Your task to perform on an android device: refresh tabs in the chrome app Image 0: 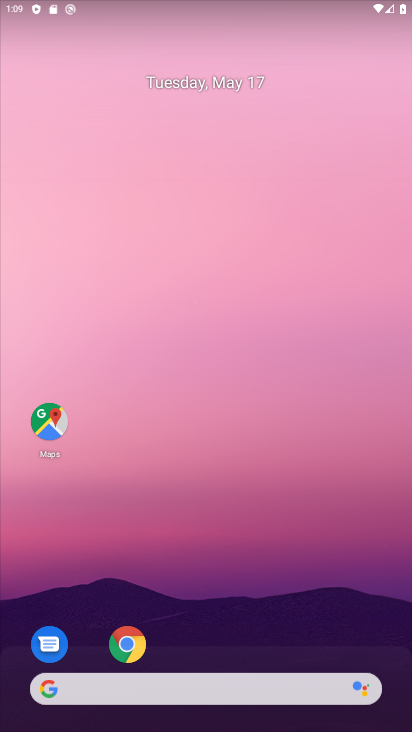
Step 0: click (127, 641)
Your task to perform on an android device: refresh tabs in the chrome app Image 1: 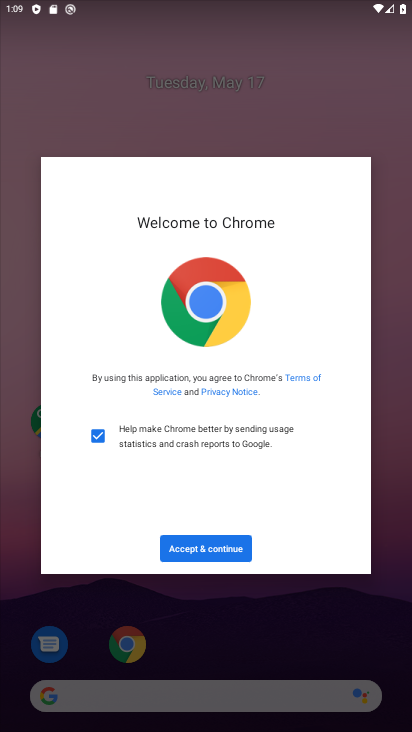
Step 1: click (241, 545)
Your task to perform on an android device: refresh tabs in the chrome app Image 2: 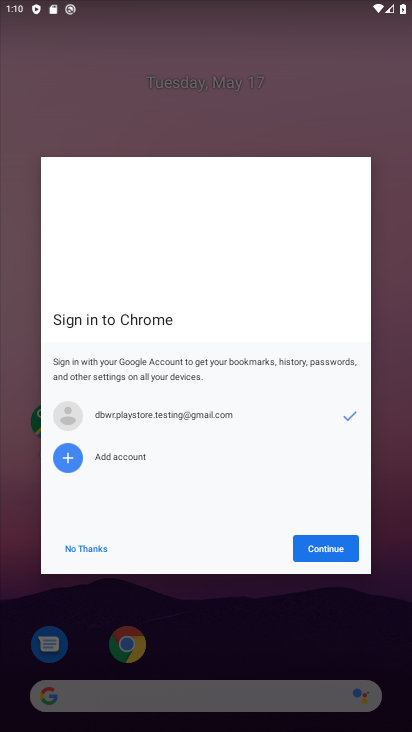
Step 2: click (314, 549)
Your task to perform on an android device: refresh tabs in the chrome app Image 3: 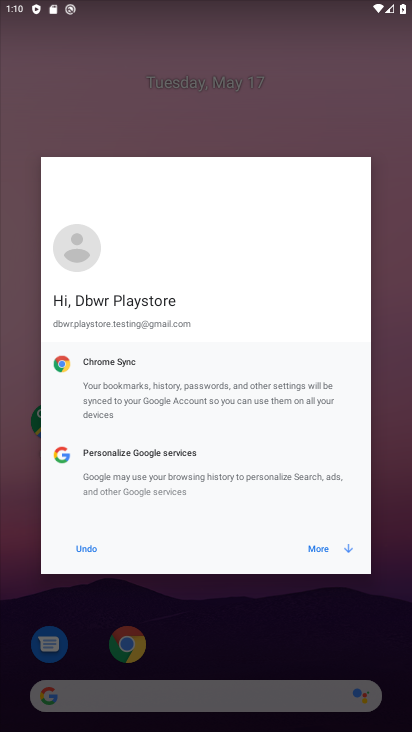
Step 3: click (315, 544)
Your task to perform on an android device: refresh tabs in the chrome app Image 4: 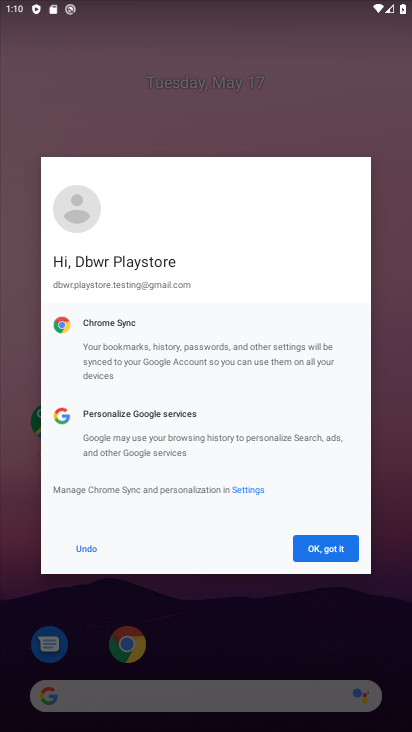
Step 4: click (315, 545)
Your task to perform on an android device: refresh tabs in the chrome app Image 5: 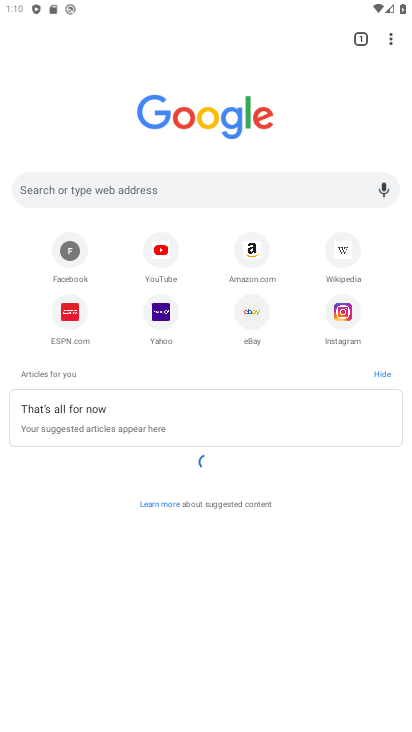
Step 5: click (391, 44)
Your task to perform on an android device: refresh tabs in the chrome app Image 6: 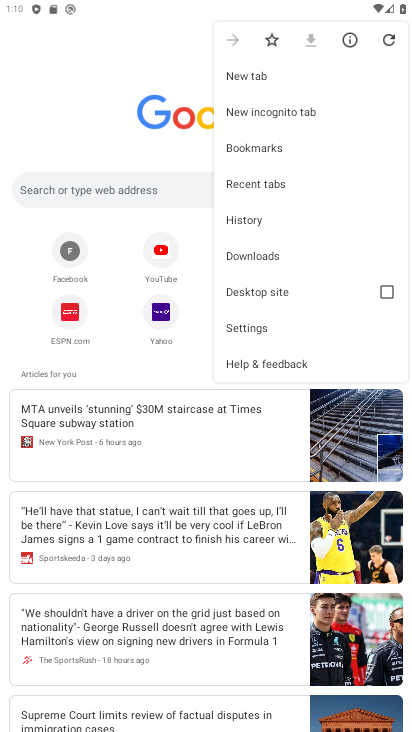
Step 6: click (390, 38)
Your task to perform on an android device: refresh tabs in the chrome app Image 7: 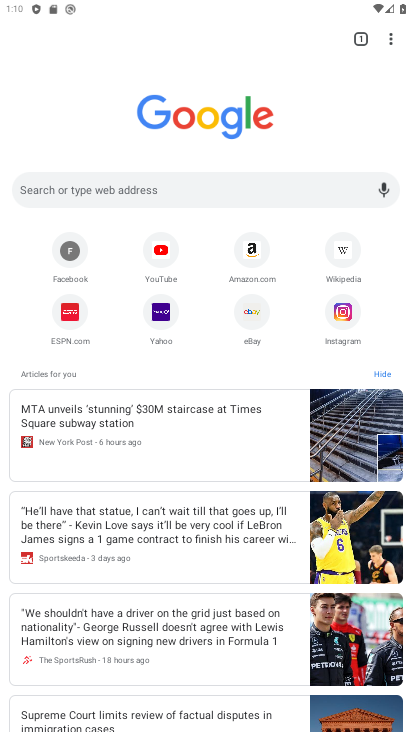
Step 7: task complete